Your task to perform on an android device: change keyboard looks Image 0: 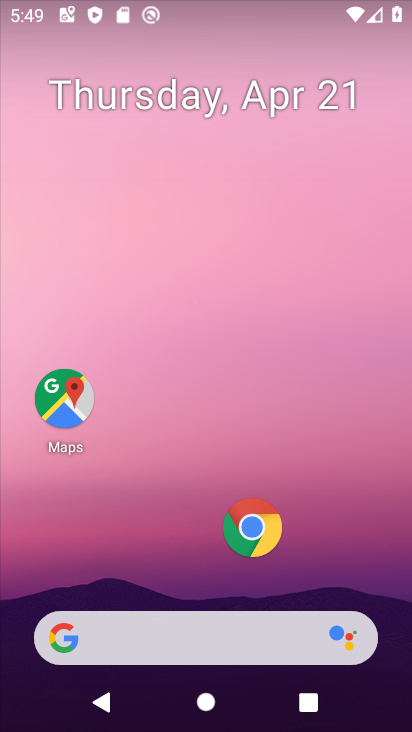
Step 0: drag from (164, 479) to (257, 83)
Your task to perform on an android device: change keyboard looks Image 1: 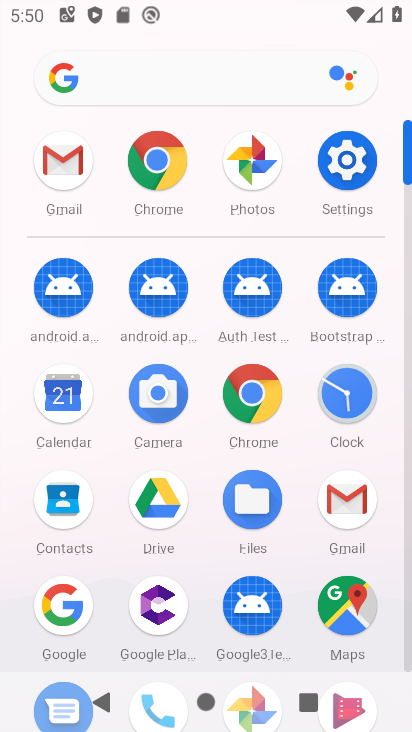
Step 1: click (343, 151)
Your task to perform on an android device: change keyboard looks Image 2: 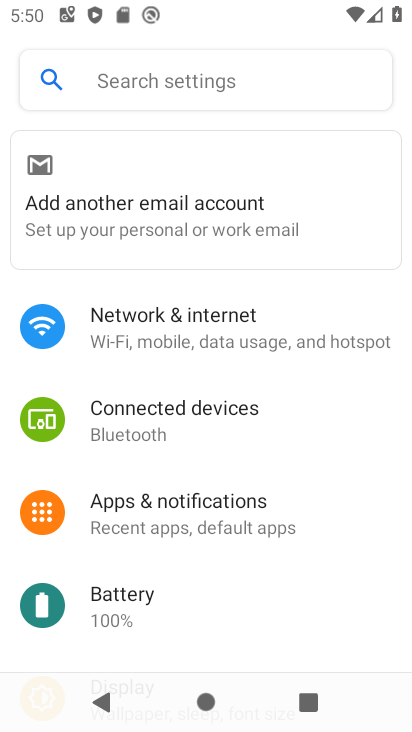
Step 2: drag from (216, 619) to (284, 93)
Your task to perform on an android device: change keyboard looks Image 3: 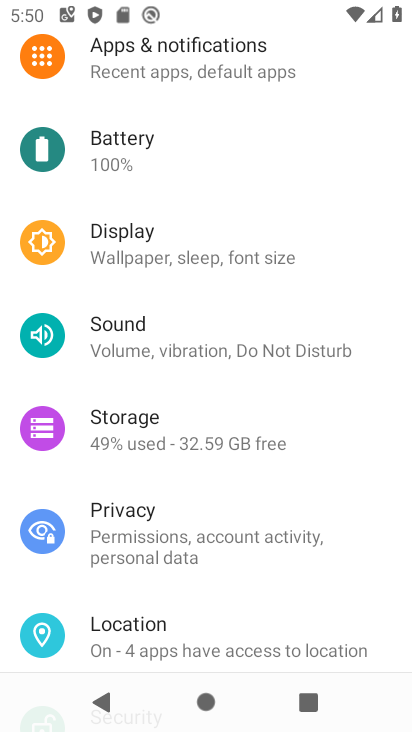
Step 3: drag from (161, 605) to (218, 41)
Your task to perform on an android device: change keyboard looks Image 4: 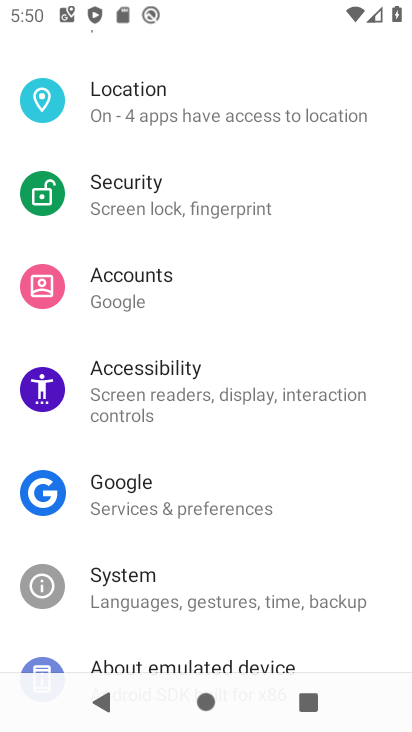
Step 4: drag from (174, 591) to (275, 26)
Your task to perform on an android device: change keyboard looks Image 5: 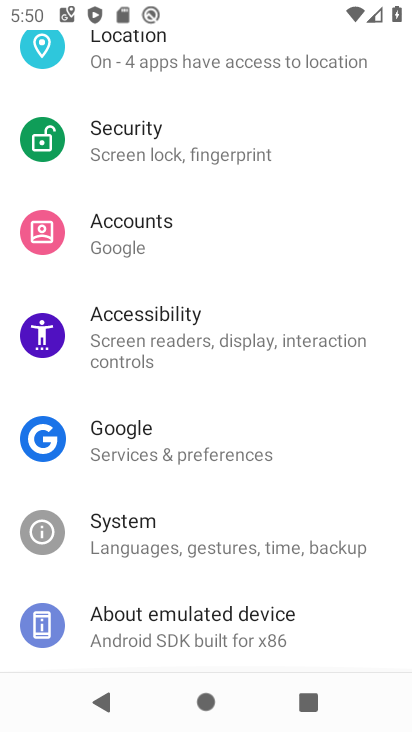
Step 5: click (173, 532)
Your task to perform on an android device: change keyboard looks Image 6: 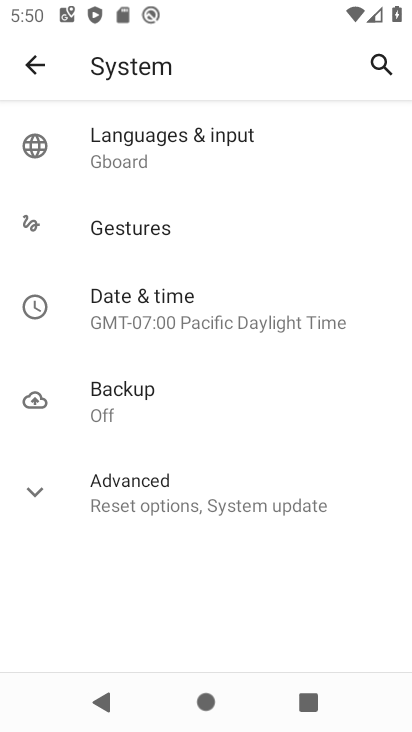
Step 6: click (160, 139)
Your task to perform on an android device: change keyboard looks Image 7: 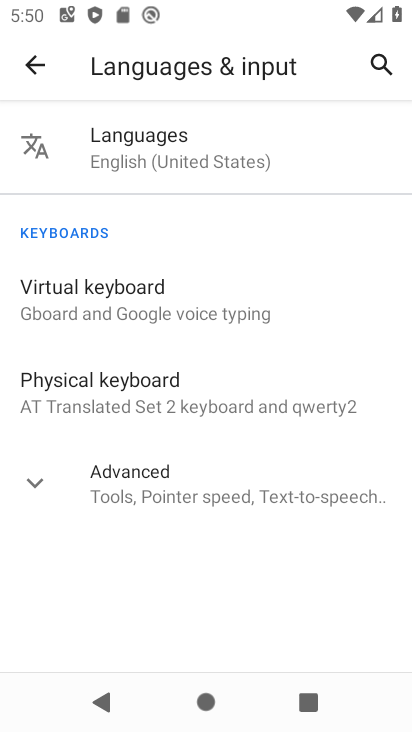
Step 7: click (111, 307)
Your task to perform on an android device: change keyboard looks Image 8: 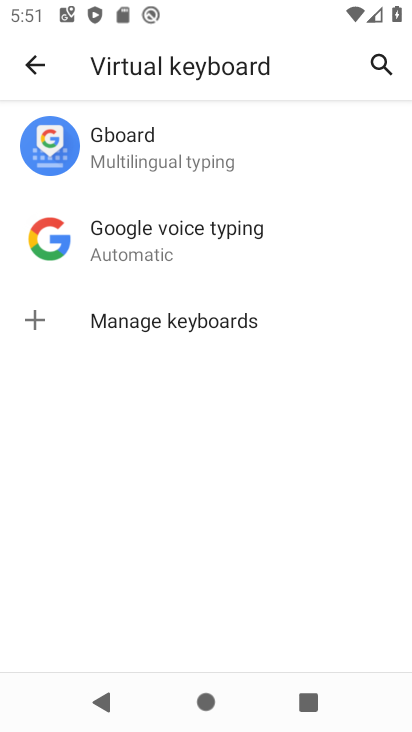
Step 8: click (165, 153)
Your task to perform on an android device: change keyboard looks Image 9: 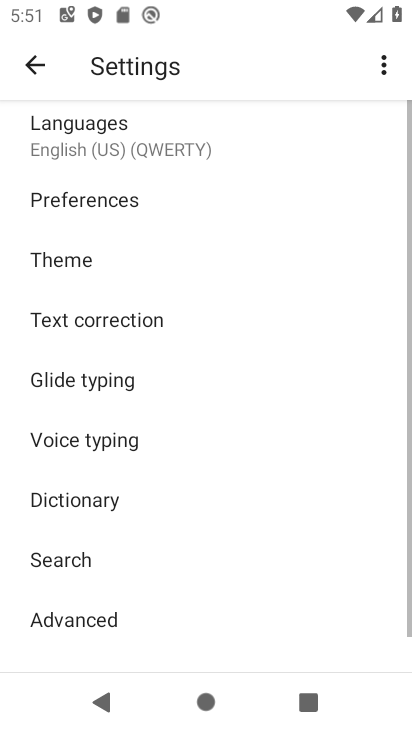
Step 9: click (88, 250)
Your task to perform on an android device: change keyboard looks Image 10: 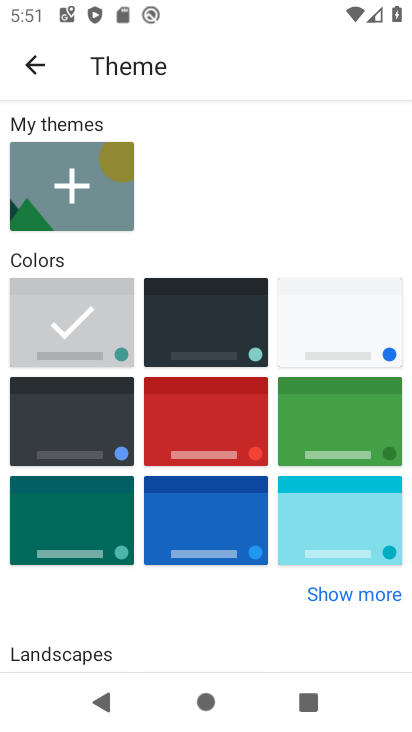
Step 10: click (340, 420)
Your task to perform on an android device: change keyboard looks Image 11: 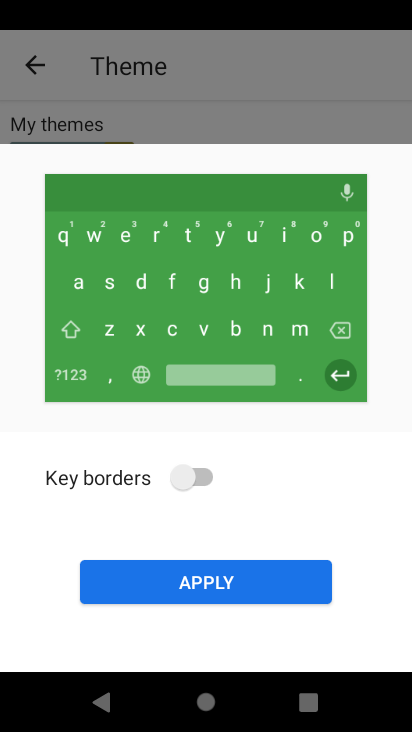
Step 11: click (222, 578)
Your task to perform on an android device: change keyboard looks Image 12: 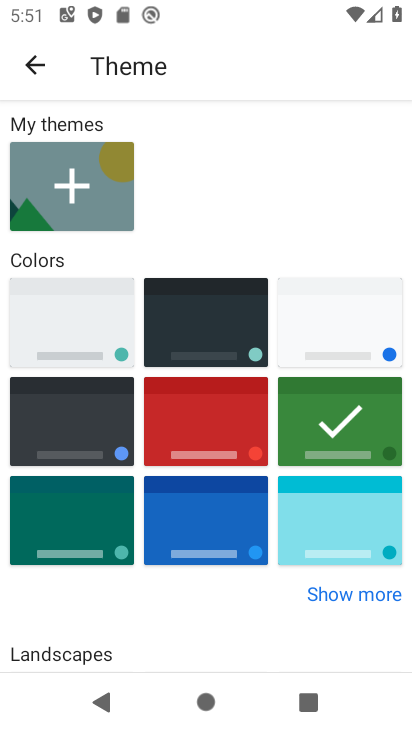
Step 12: task complete